Your task to perform on an android device: Open Amazon Image 0: 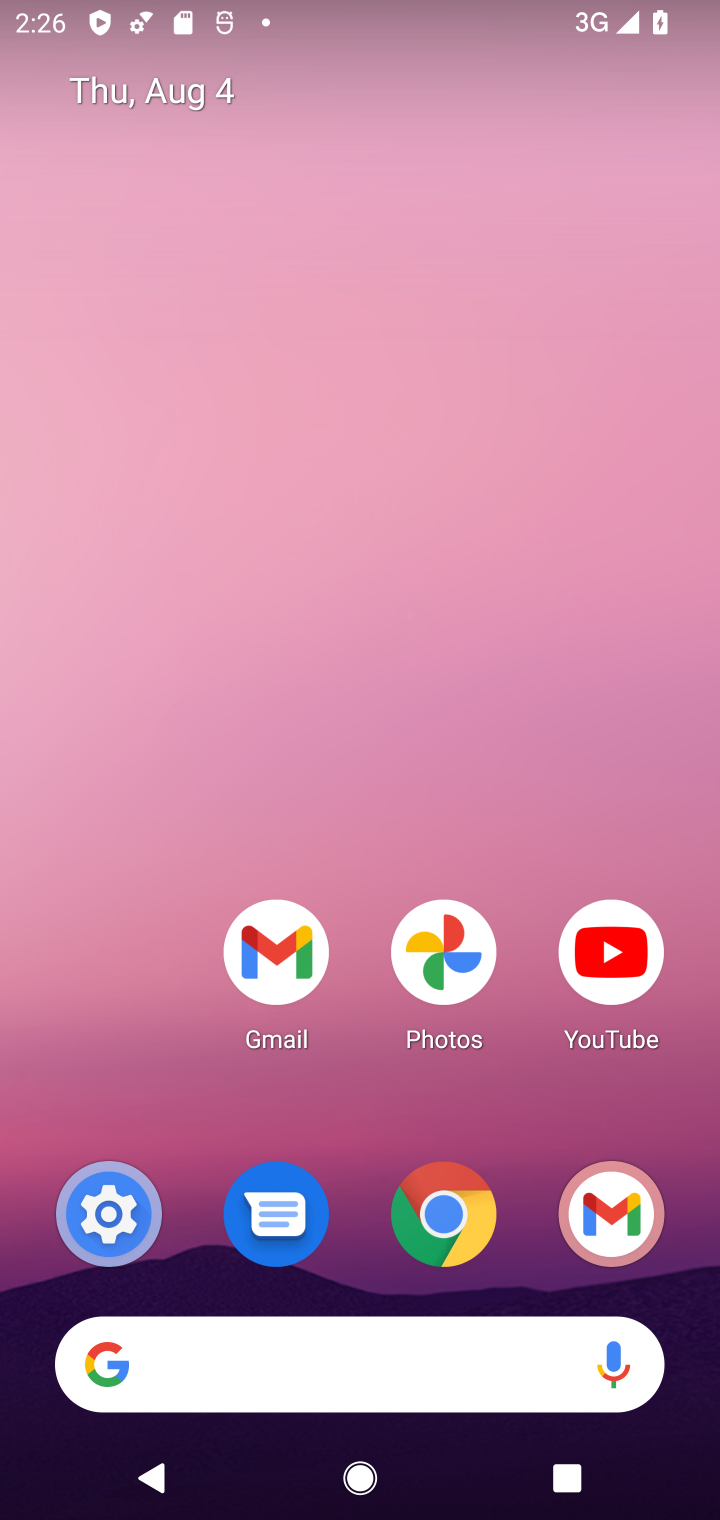
Step 0: drag from (127, 759) to (114, 482)
Your task to perform on an android device: Open Amazon Image 1: 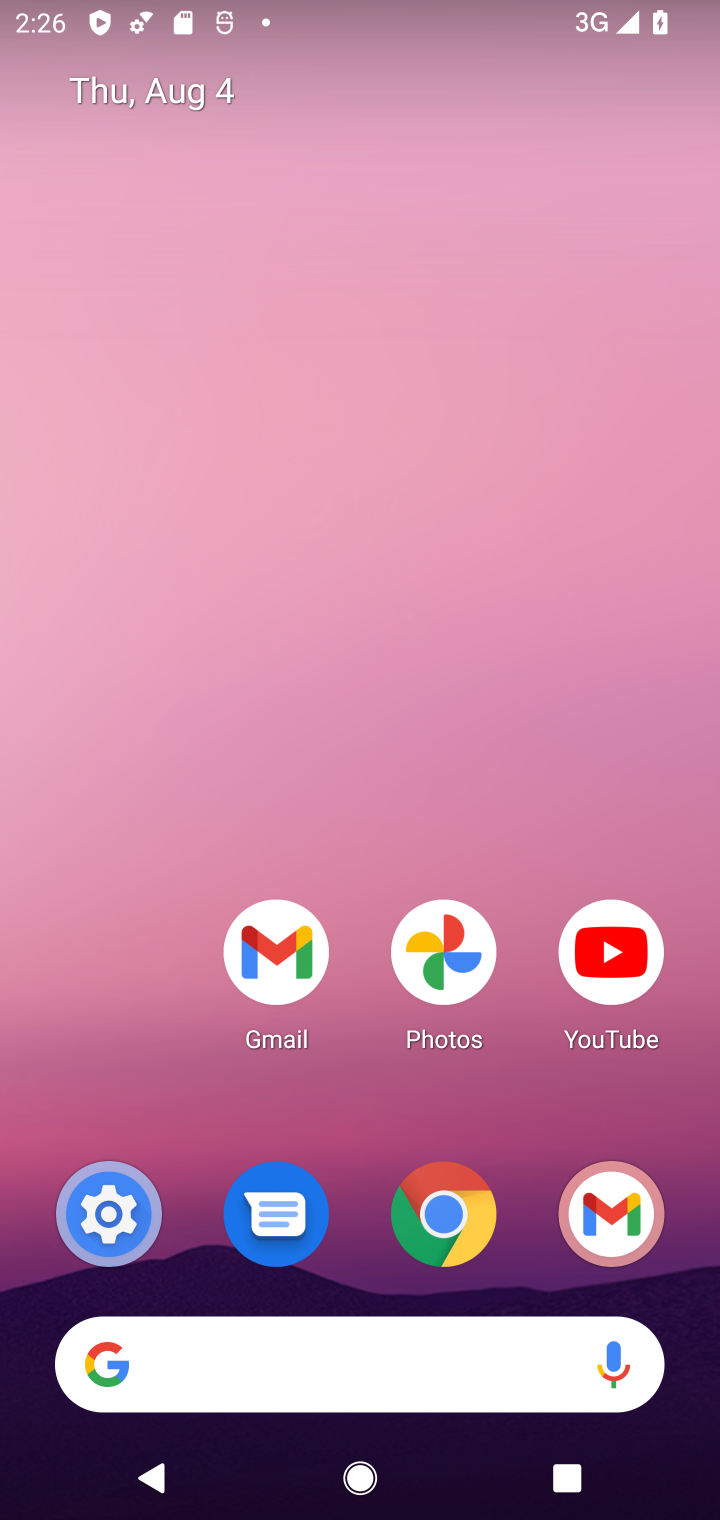
Step 1: drag from (131, 898) to (123, 226)
Your task to perform on an android device: Open Amazon Image 2: 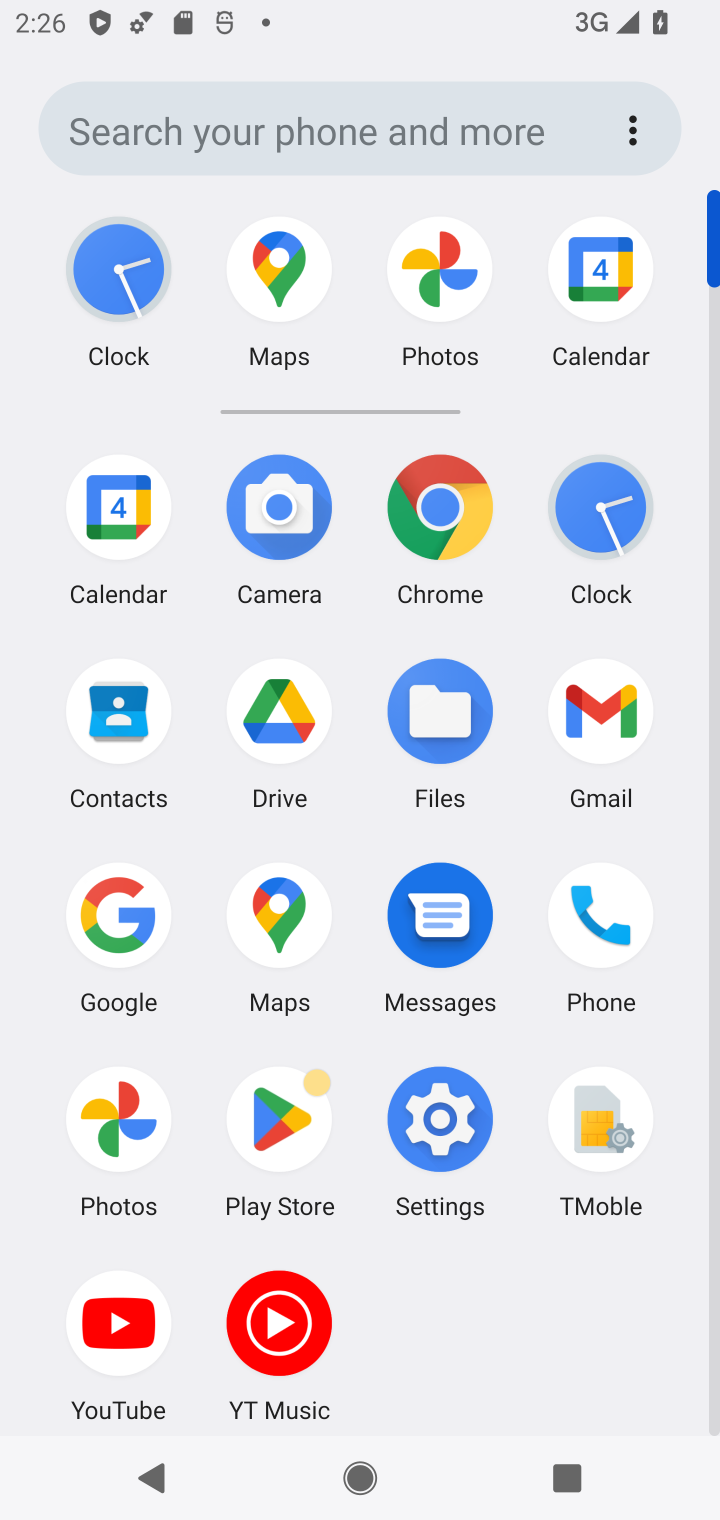
Step 2: click (96, 924)
Your task to perform on an android device: Open Amazon Image 3: 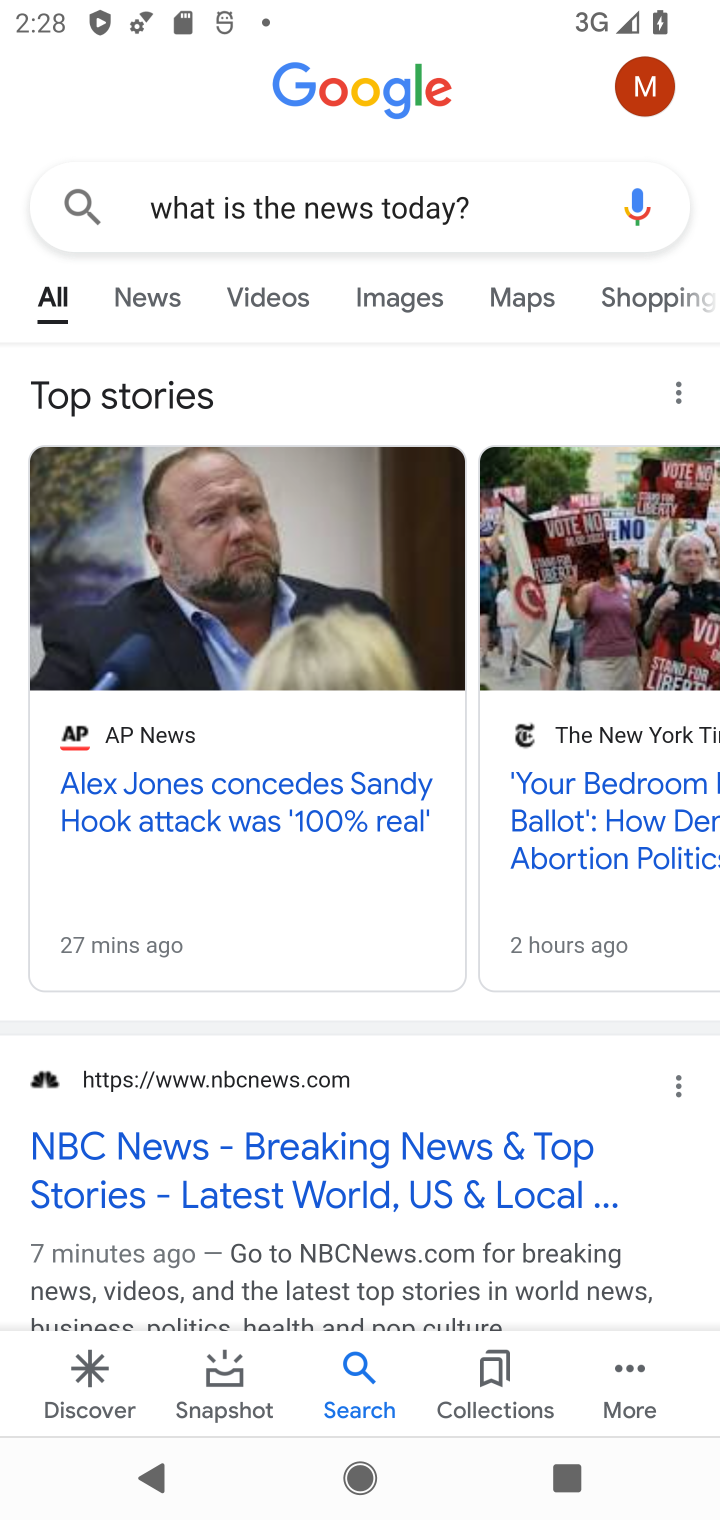
Step 3: press back button
Your task to perform on an android device: Open Amazon Image 4: 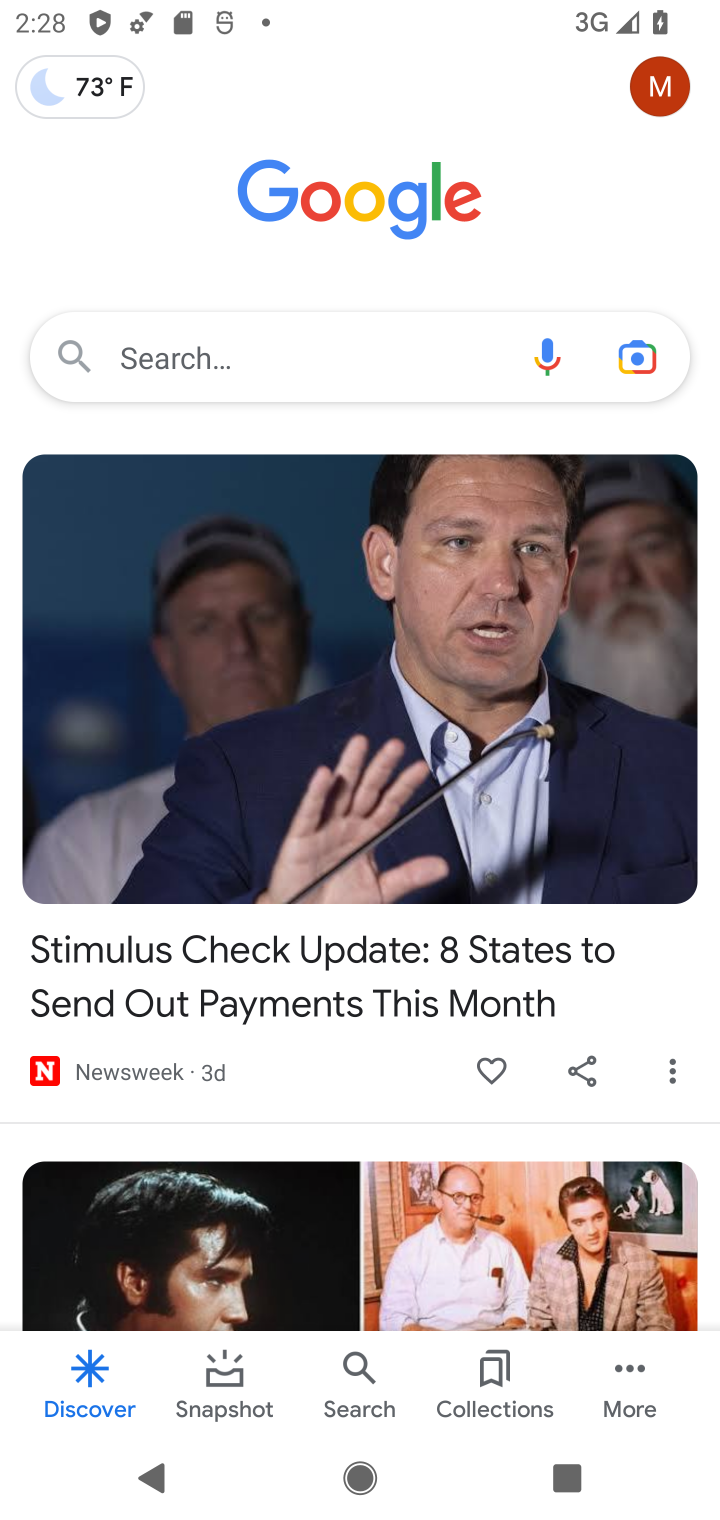
Step 4: click (215, 147)
Your task to perform on an android device: Open Amazon Image 5: 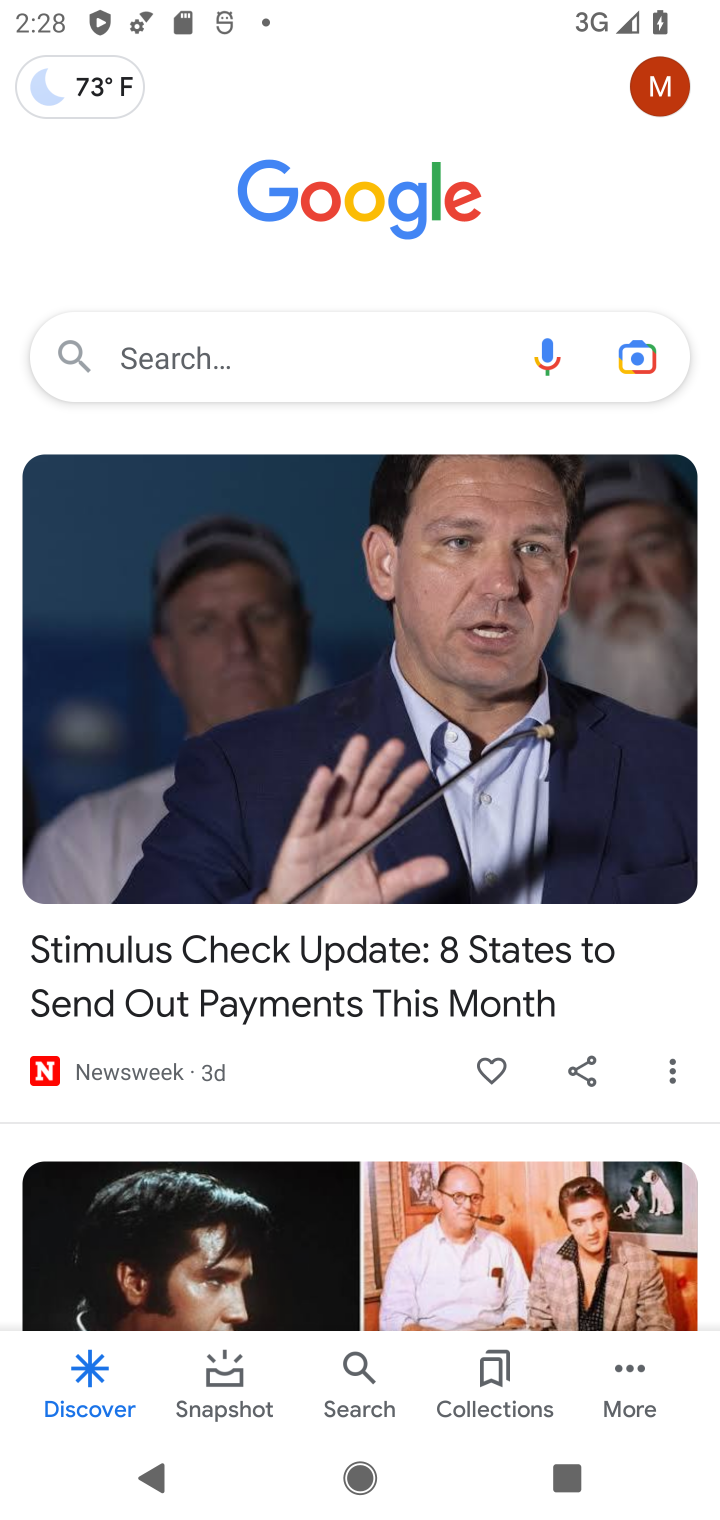
Step 5: click (185, 326)
Your task to perform on an android device: Open Amazon Image 6: 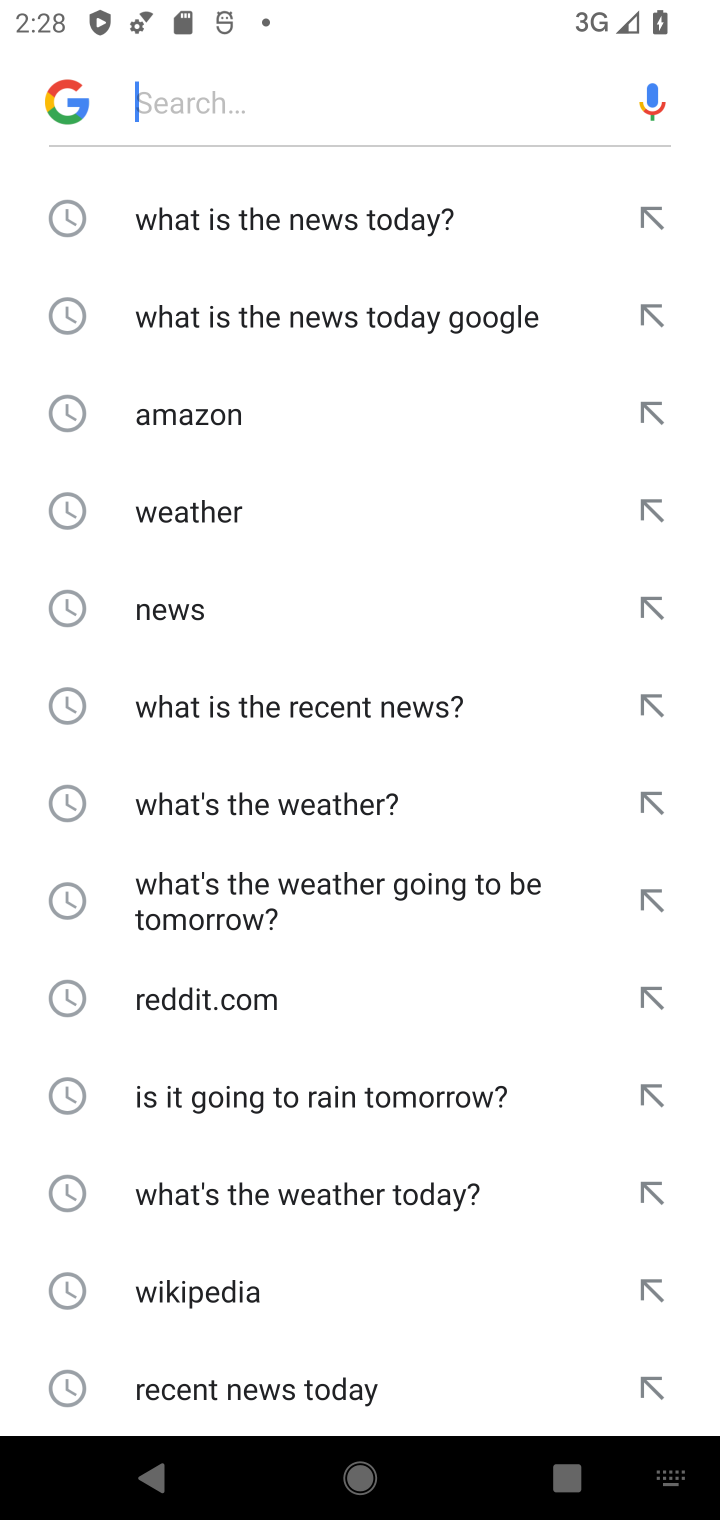
Step 6: click (231, 424)
Your task to perform on an android device: Open Amazon Image 7: 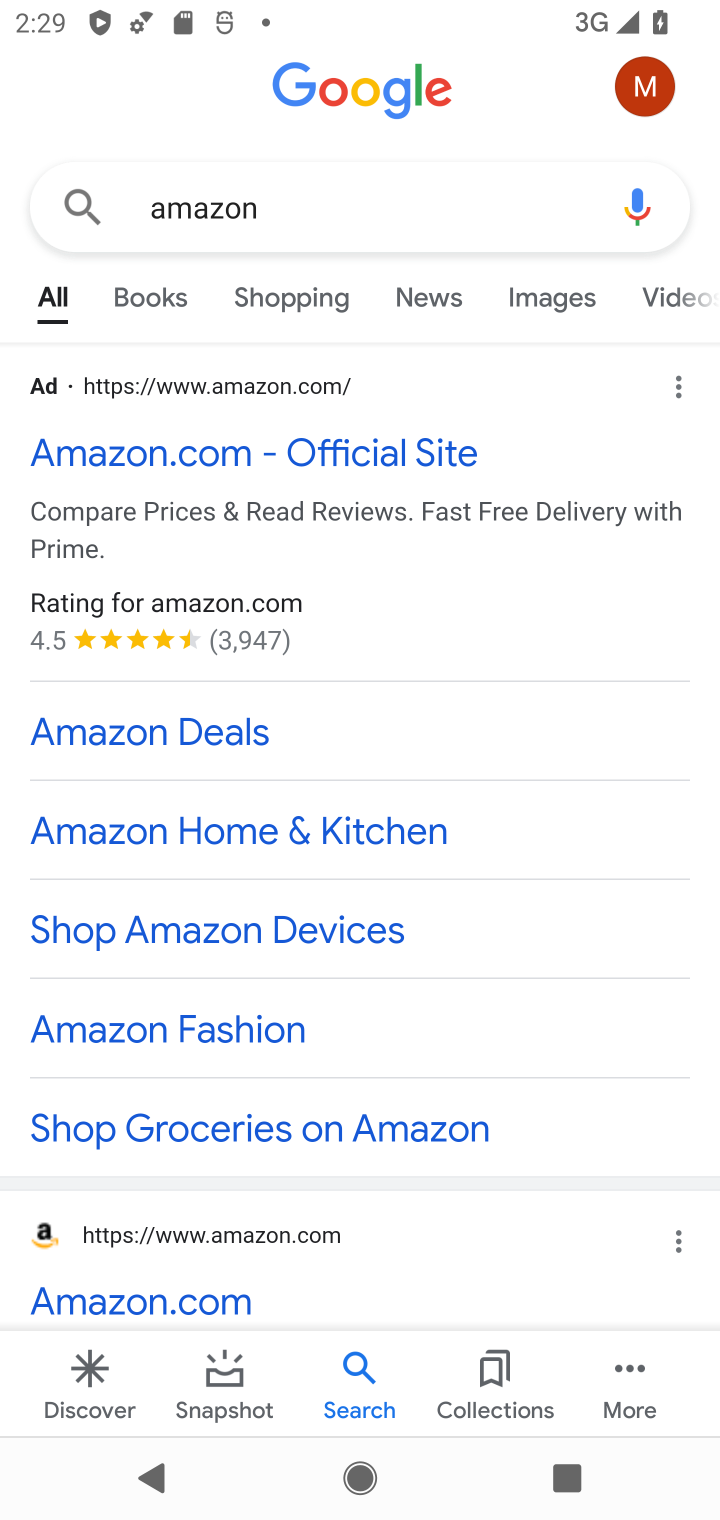
Step 7: task complete